Your task to perform on an android device: allow cookies in the chrome app Image 0: 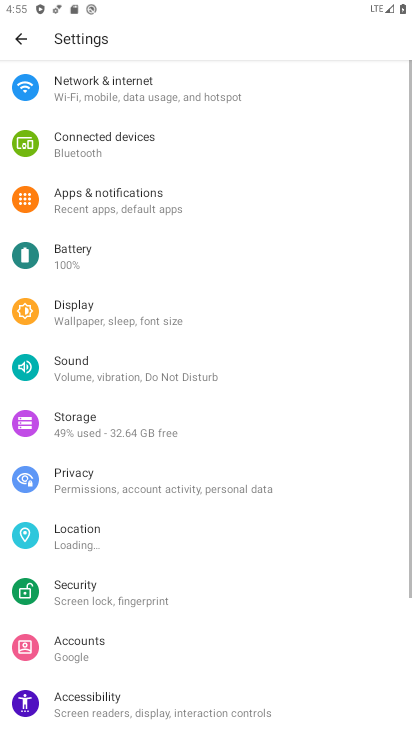
Step 0: press home button
Your task to perform on an android device: allow cookies in the chrome app Image 1: 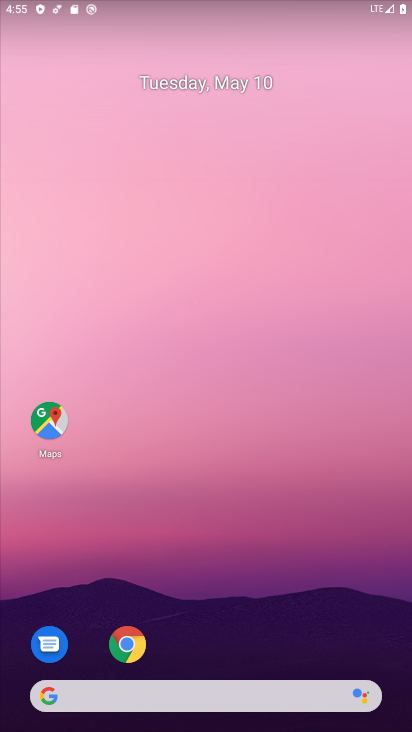
Step 1: click (123, 639)
Your task to perform on an android device: allow cookies in the chrome app Image 2: 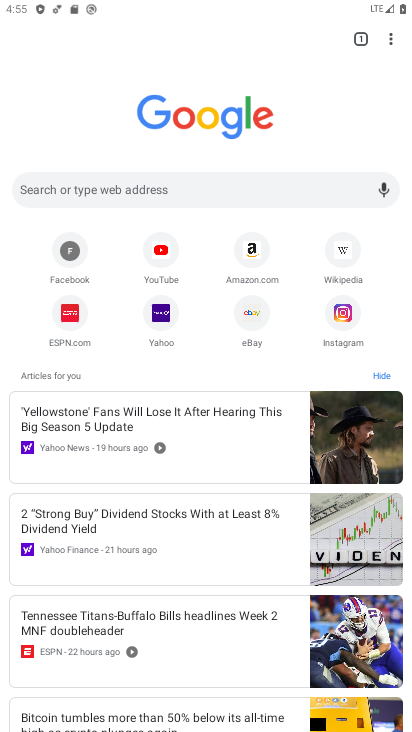
Step 2: click (393, 34)
Your task to perform on an android device: allow cookies in the chrome app Image 3: 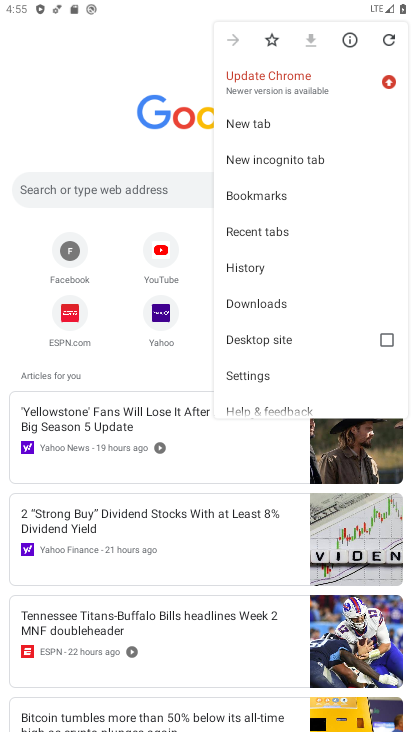
Step 3: click (261, 374)
Your task to perform on an android device: allow cookies in the chrome app Image 4: 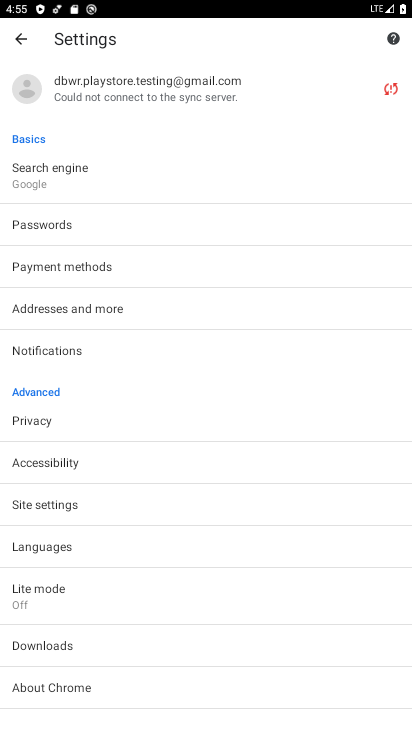
Step 4: drag from (131, 652) to (187, 125)
Your task to perform on an android device: allow cookies in the chrome app Image 5: 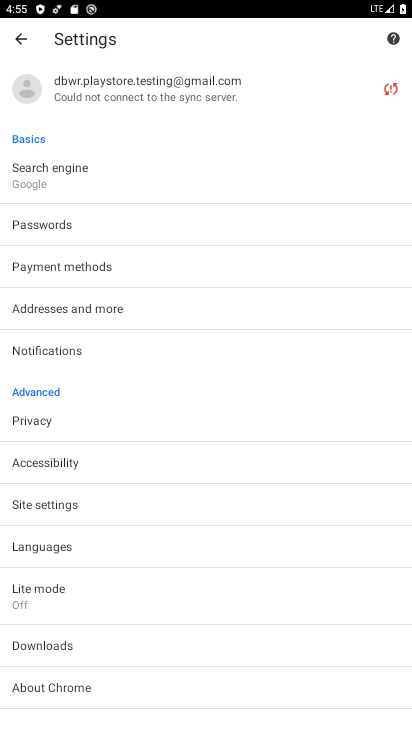
Step 5: click (99, 506)
Your task to perform on an android device: allow cookies in the chrome app Image 6: 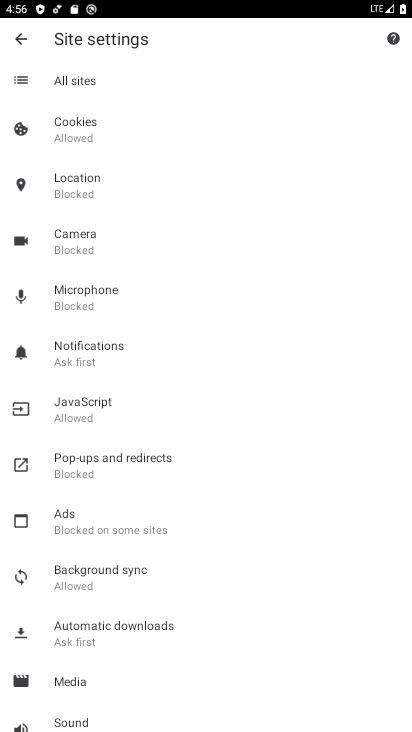
Step 6: click (103, 128)
Your task to perform on an android device: allow cookies in the chrome app Image 7: 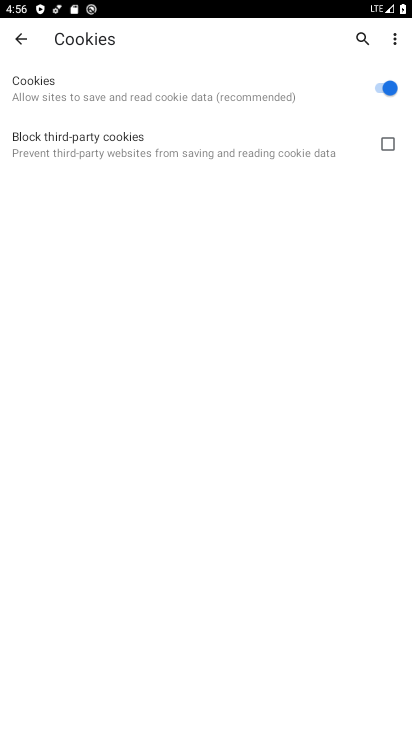
Step 7: task complete